Your task to perform on an android device: visit the assistant section in the google photos Image 0: 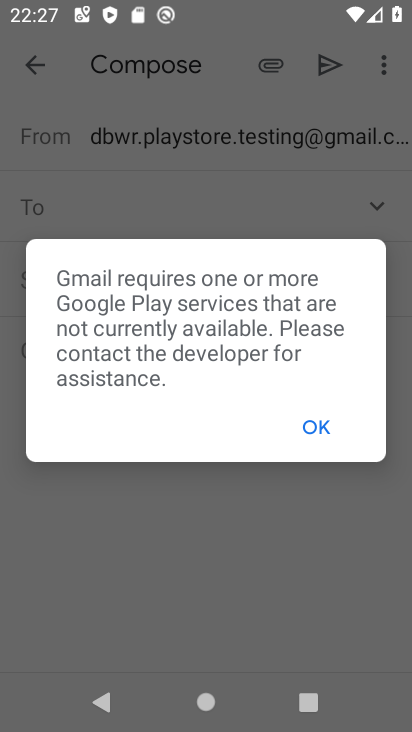
Step 0: press home button
Your task to perform on an android device: visit the assistant section in the google photos Image 1: 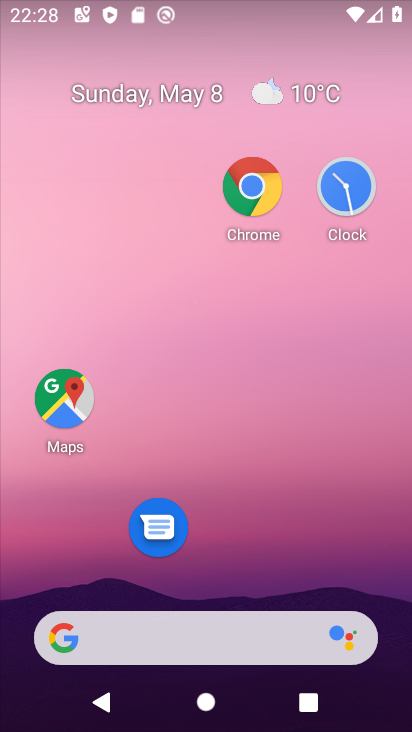
Step 1: drag from (284, 450) to (315, 7)
Your task to perform on an android device: visit the assistant section in the google photos Image 2: 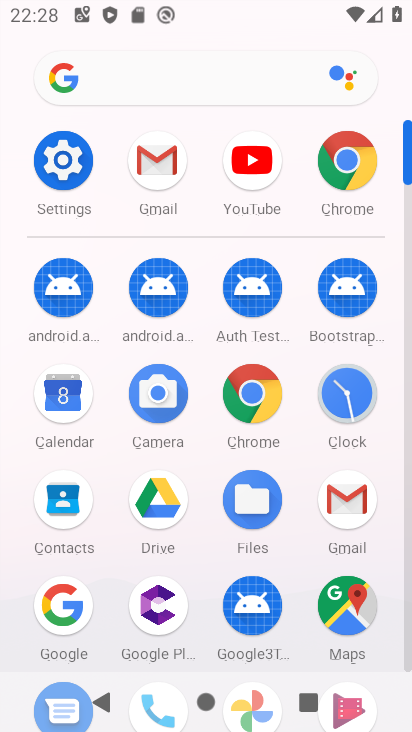
Step 2: drag from (244, 637) to (234, 307)
Your task to perform on an android device: visit the assistant section in the google photos Image 3: 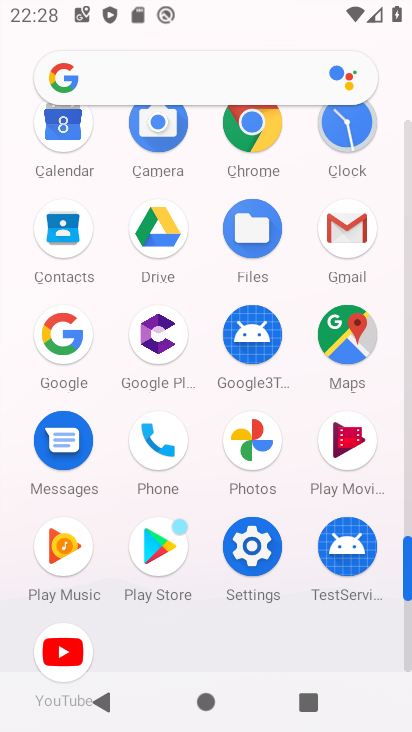
Step 3: click (260, 443)
Your task to perform on an android device: visit the assistant section in the google photos Image 4: 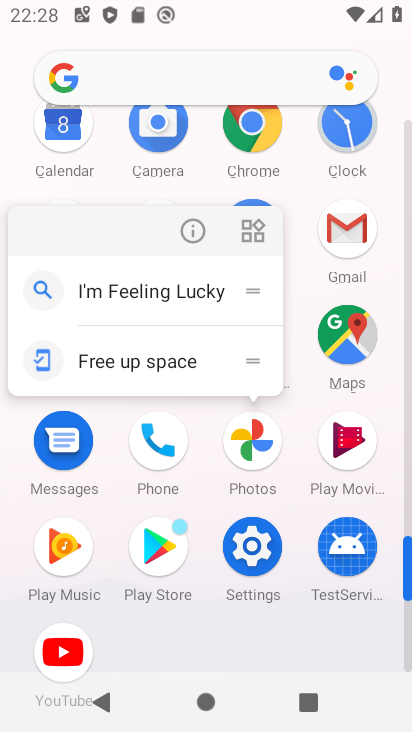
Step 4: click (257, 444)
Your task to perform on an android device: visit the assistant section in the google photos Image 5: 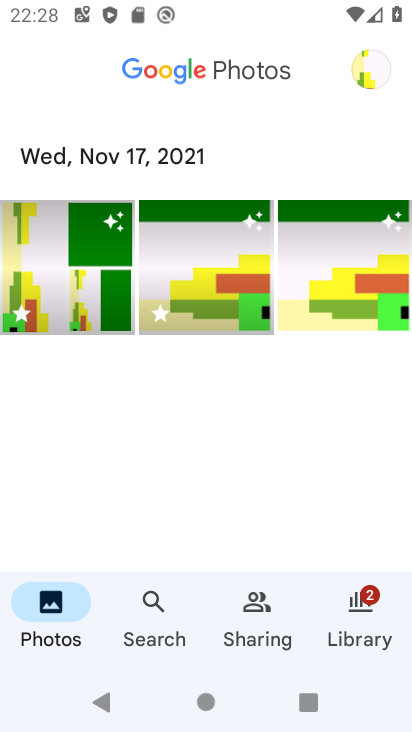
Step 5: click (153, 595)
Your task to perform on an android device: visit the assistant section in the google photos Image 6: 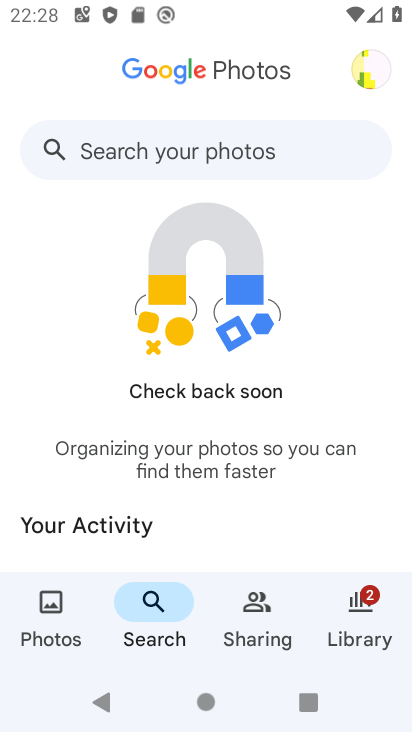
Step 6: click (118, 134)
Your task to perform on an android device: visit the assistant section in the google photos Image 7: 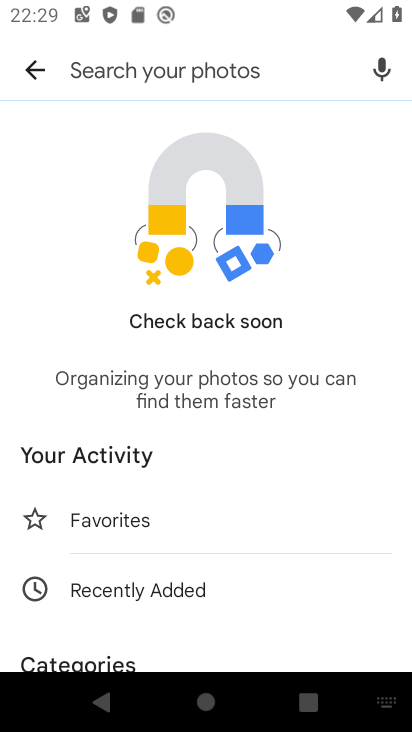
Step 7: type "assistant  section"
Your task to perform on an android device: visit the assistant section in the google photos Image 8: 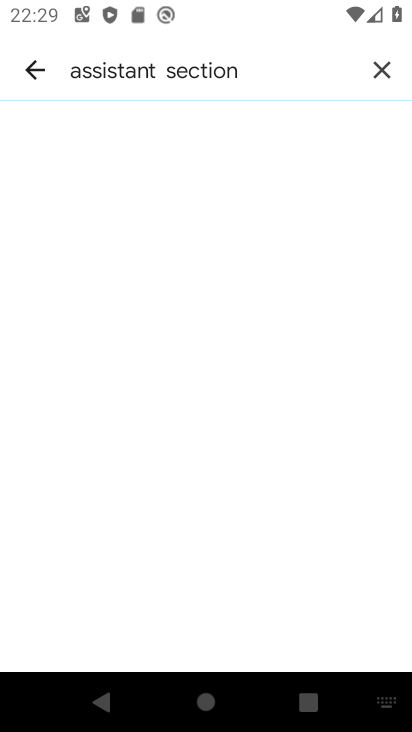
Step 8: type "ass"
Your task to perform on an android device: visit the assistant section in the google photos Image 9: 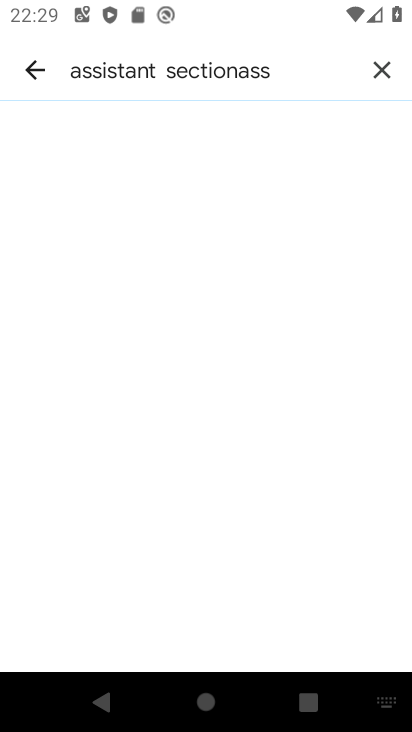
Step 9: click (384, 71)
Your task to perform on an android device: visit the assistant section in the google photos Image 10: 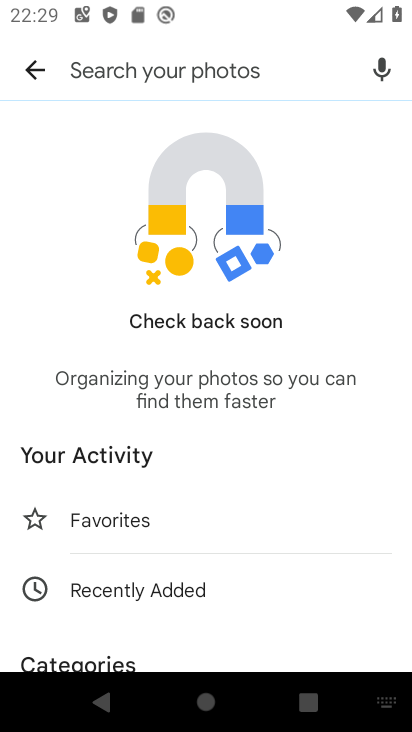
Step 10: click (116, 85)
Your task to perform on an android device: visit the assistant section in the google photos Image 11: 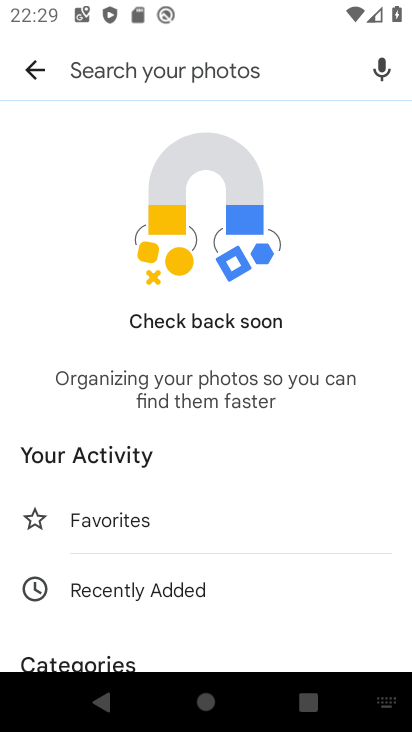
Step 11: type "assistant"
Your task to perform on an android device: visit the assistant section in the google photos Image 12: 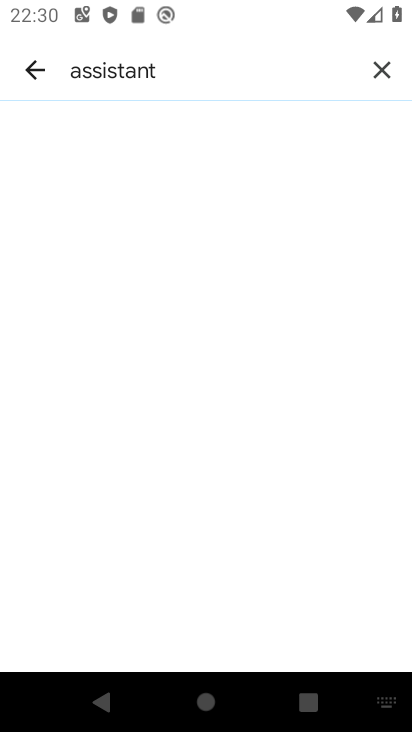
Step 12: task complete